Your task to perform on an android device: Open maps Image 0: 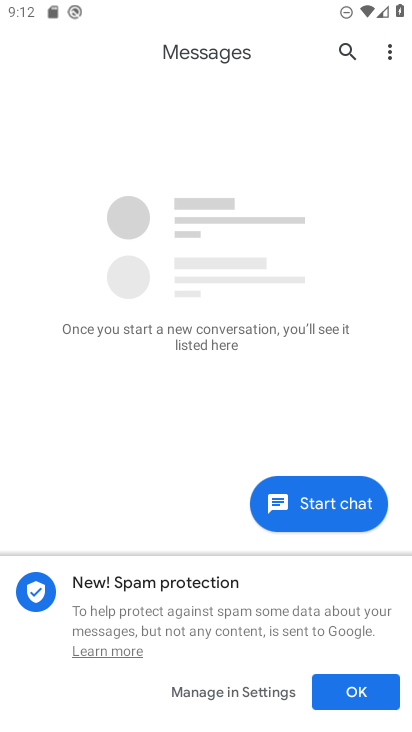
Step 0: press home button
Your task to perform on an android device: Open maps Image 1: 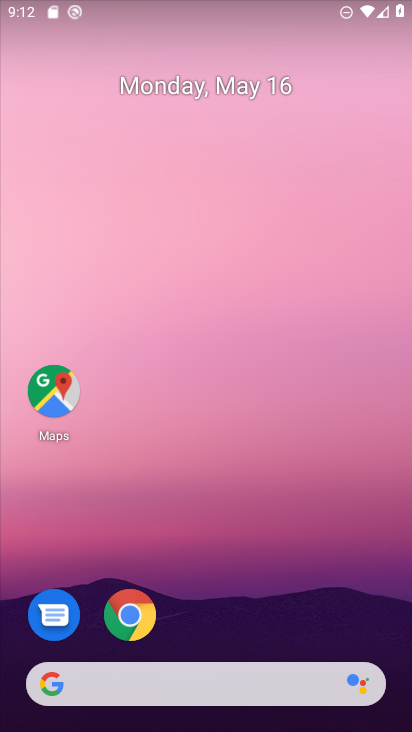
Step 1: click (67, 382)
Your task to perform on an android device: Open maps Image 2: 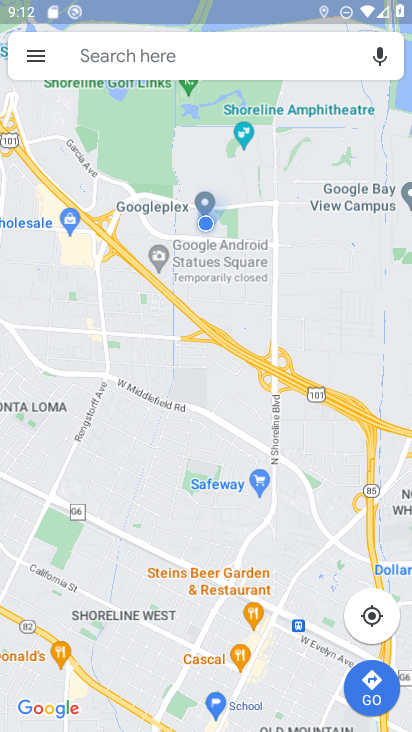
Step 2: task complete